Your task to perform on an android device: find photos in the google photos app Image 0: 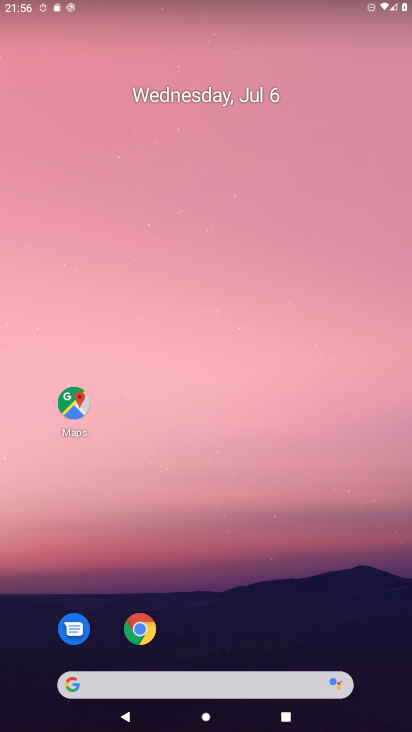
Step 0: drag from (236, 721) to (215, 83)
Your task to perform on an android device: find photos in the google photos app Image 1: 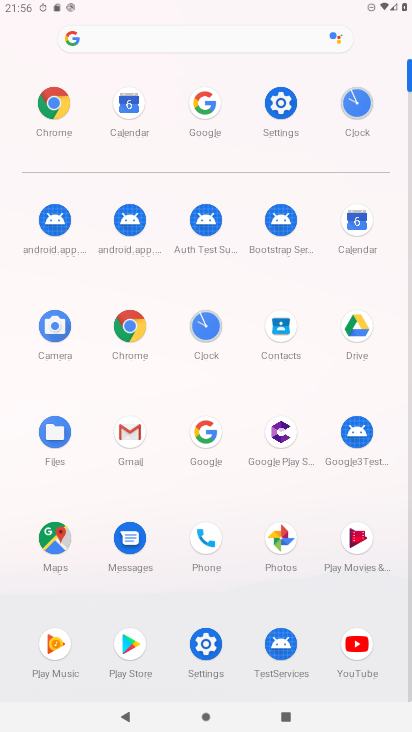
Step 1: click (280, 535)
Your task to perform on an android device: find photos in the google photos app Image 2: 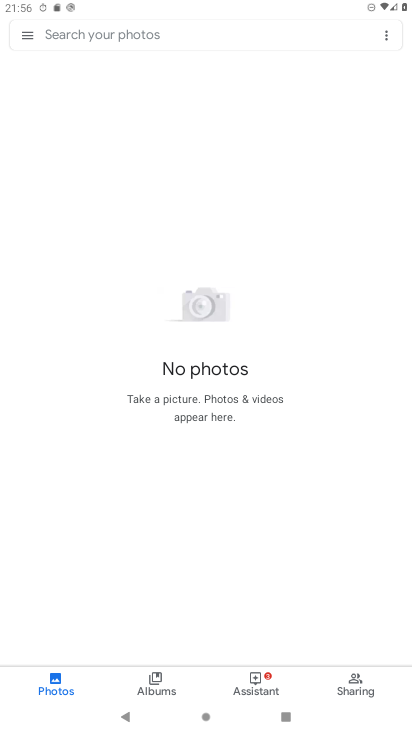
Step 2: press home button
Your task to perform on an android device: find photos in the google photos app Image 3: 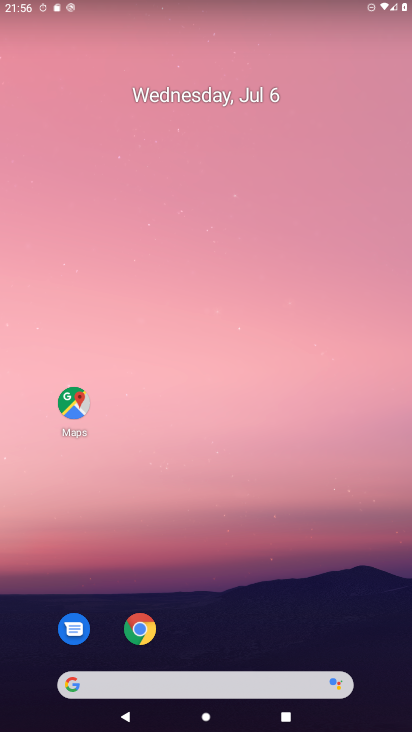
Step 3: drag from (232, 727) to (215, 547)
Your task to perform on an android device: find photos in the google photos app Image 4: 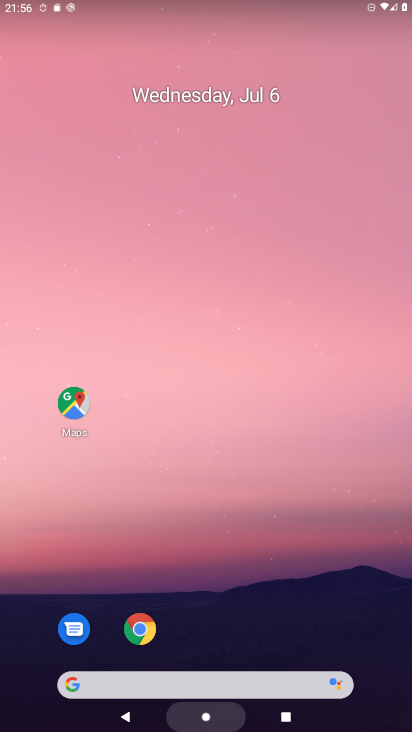
Step 4: drag from (179, 258) to (161, 58)
Your task to perform on an android device: find photos in the google photos app Image 5: 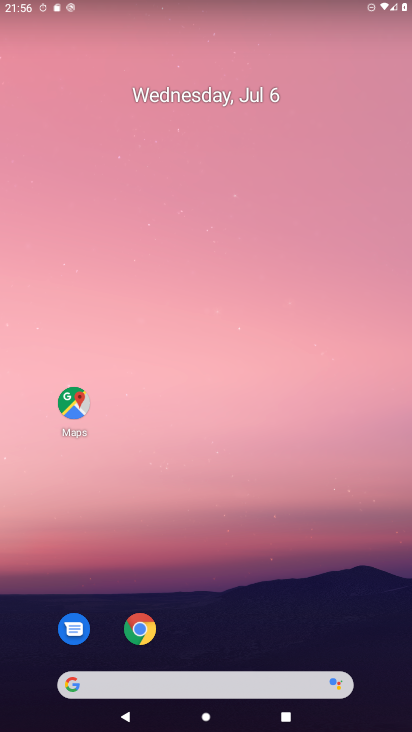
Step 5: drag from (251, 703) to (216, 53)
Your task to perform on an android device: find photos in the google photos app Image 6: 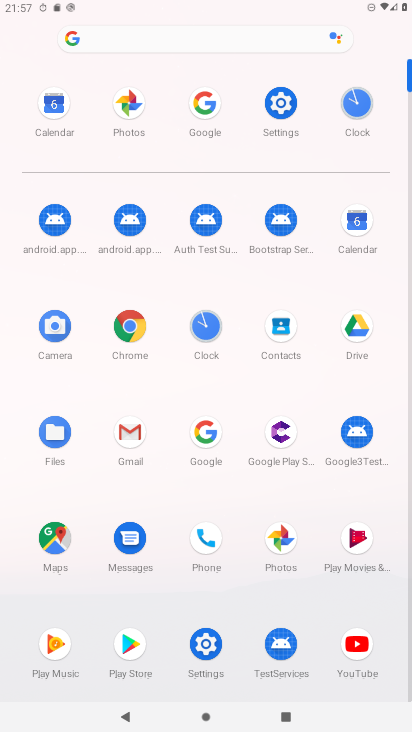
Step 6: click (283, 541)
Your task to perform on an android device: find photos in the google photos app Image 7: 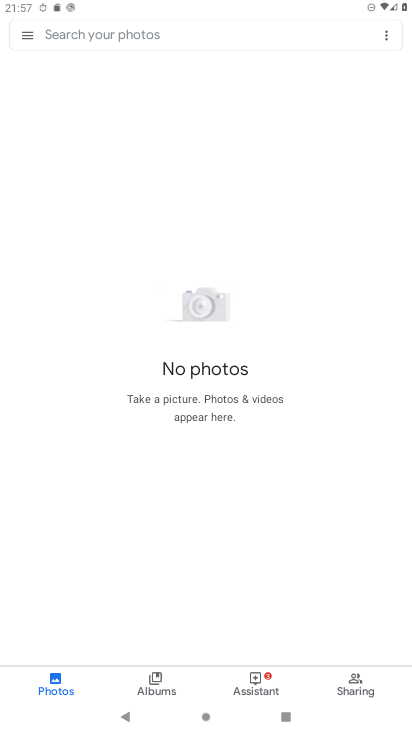
Step 7: click (54, 684)
Your task to perform on an android device: find photos in the google photos app Image 8: 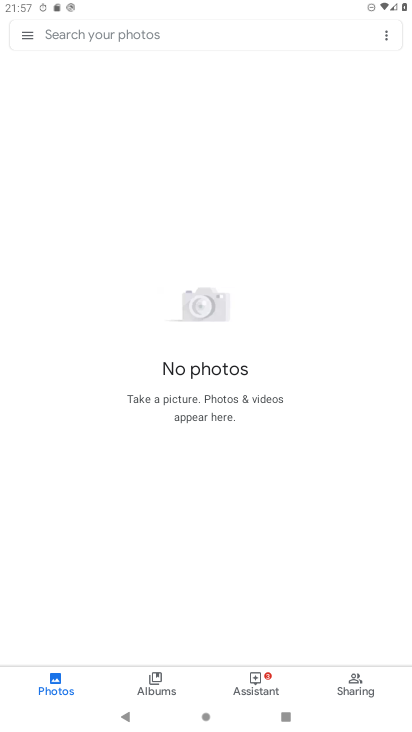
Step 8: task complete